Your task to perform on an android device: check the backup settings in the google photos Image 0: 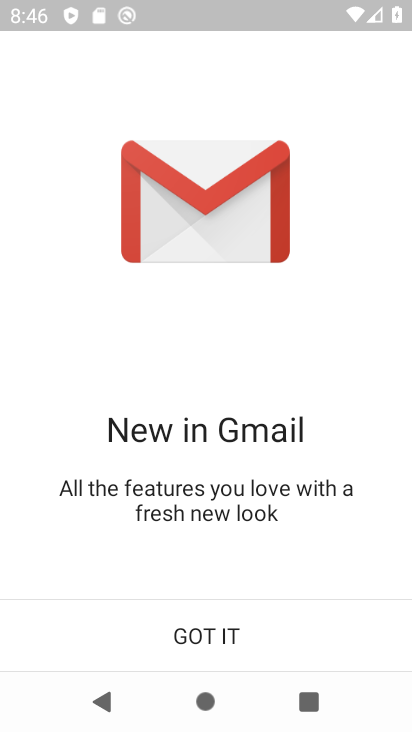
Step 0: press home button
Your task to perform on an android device: check the backup settings in the google photos Image 1: 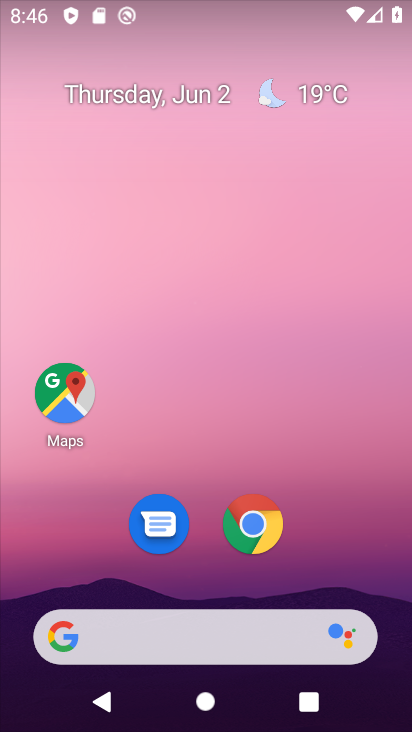
Step 1: drag from (306, 528) to (307, 9)
Your task to perform on an android device: check the backup settings in the google photos Image 2: 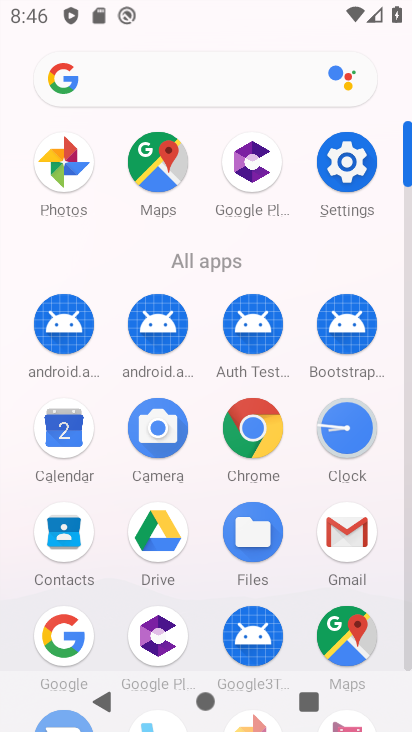
Step 2: drag from (283, 464) to (312, 287)
Your task to perform on an android device: check the backup settings in the google photos Image 3: 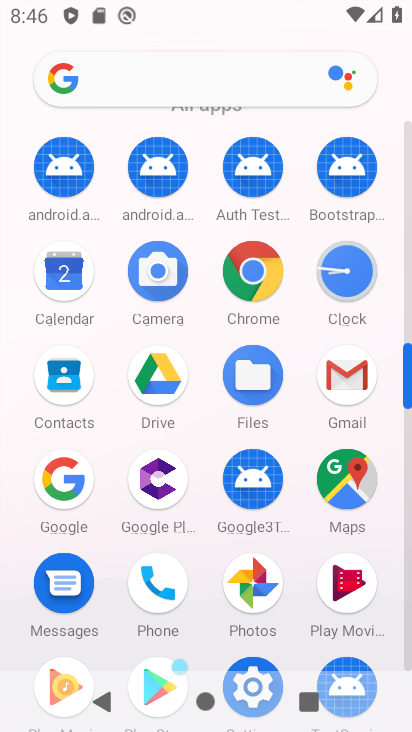
Step 3: click (260, 579)
Your task to perform on an android device: check the backup settings in the google photos Image 4: 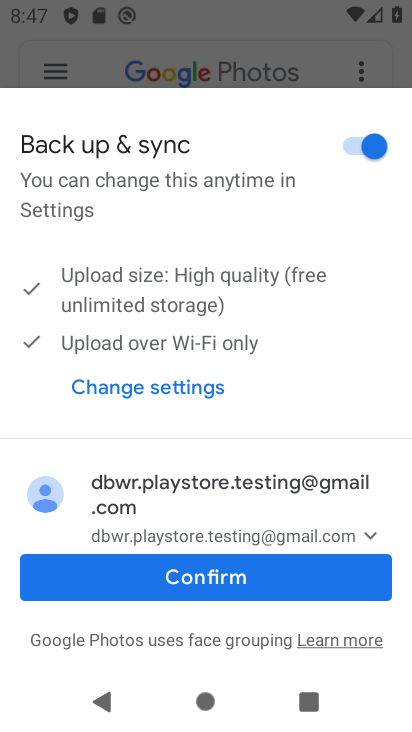
Step 4: click (244, 571)
Your task to perform on an android device: check the backup settings in the google photos Image 5: 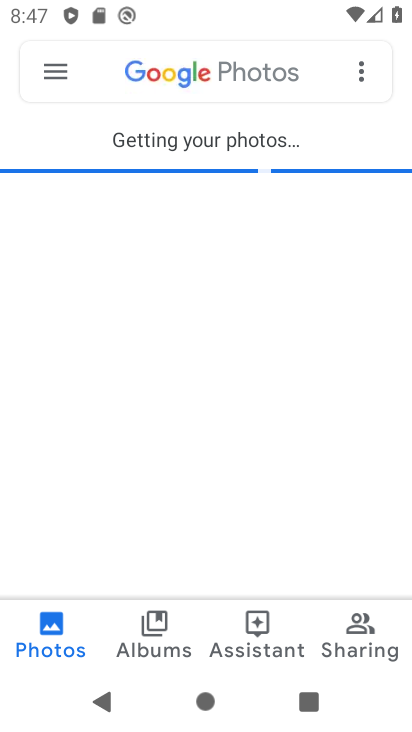
Step 5: click (52, 65)
Your task to perform on an android device: check the backup settings in the google photos Image 6: 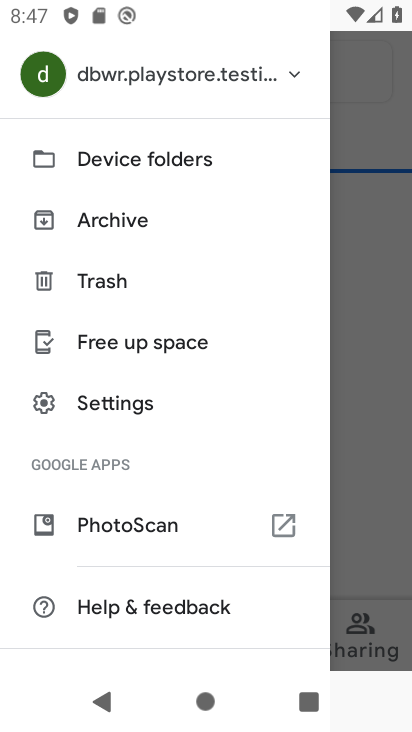
Step 6: click (129, 393)
Your task to perform on an android device: check the backup settings in the google photos Image 7: 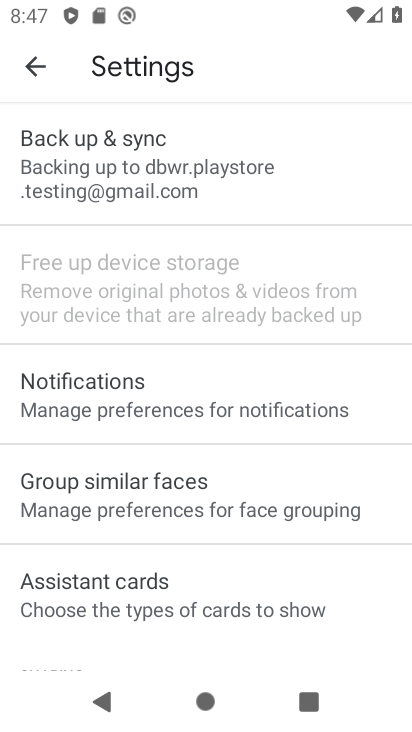
Step 7: click (119, 142)
Your task to perform on an android device: check the backup settings in the google photos Image 8: 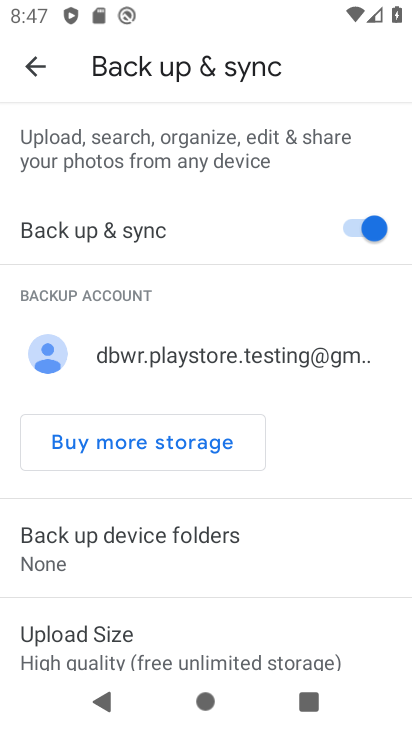
Step 8: task complete